Your task to perform on an android device: turn off data saver in the chrome app Image 0: 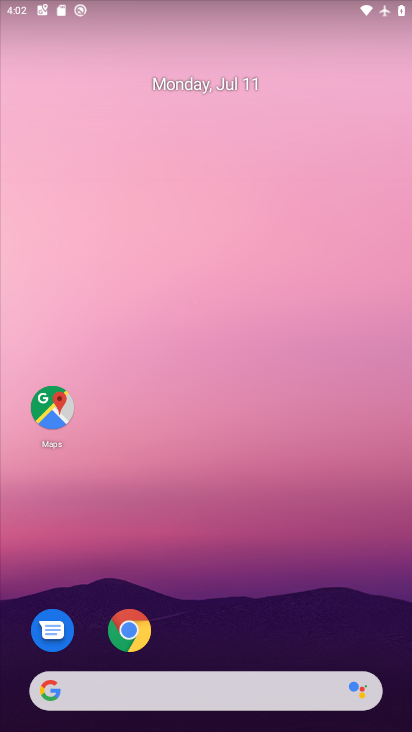
Step 0: click (131, 623)
Your task to perform on an android device: turn off data saver in the chrome app Image 1: 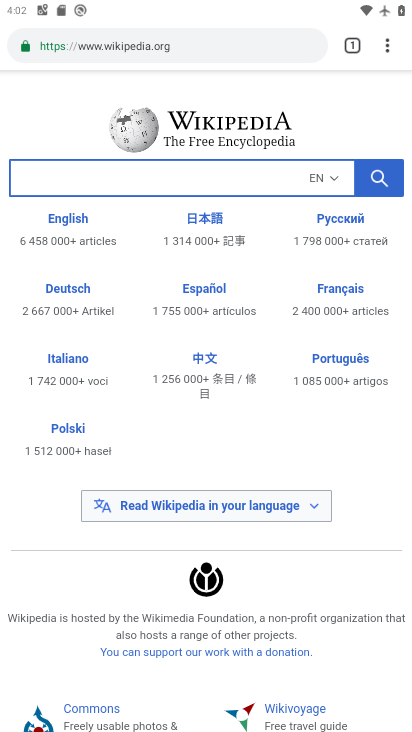
Step 1: click (394, 37)
Your task to perform on an android device: turn off data saver in the chrome app Image 2: 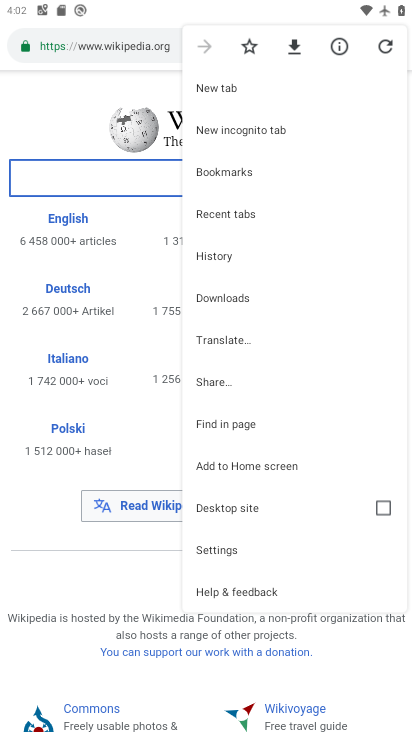
Step 2: click (250, 538)
Your task to perform on an android device: turn off data saver in the chrome app Image 3: 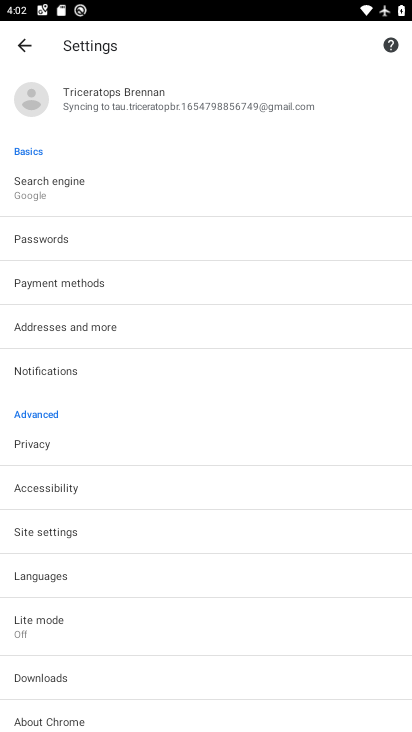
Step 3: click (125, 643)
Your task to perform on an android device: turn off data saver in the chrome app Image 4: 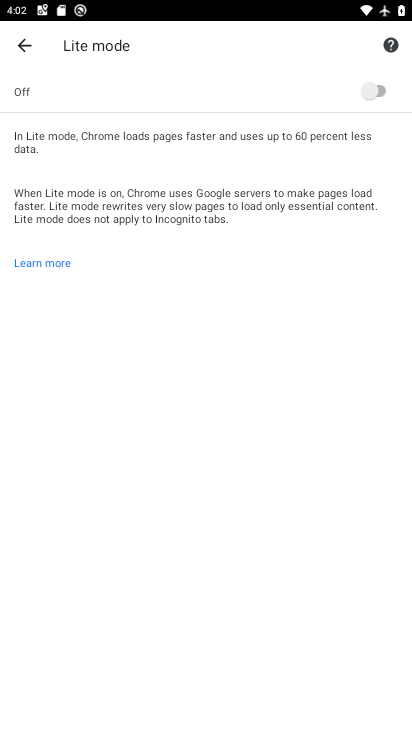
Step 4: click (362, 73)
Your task to perform on an android device: turn off data saver in the chrome app Image 5: 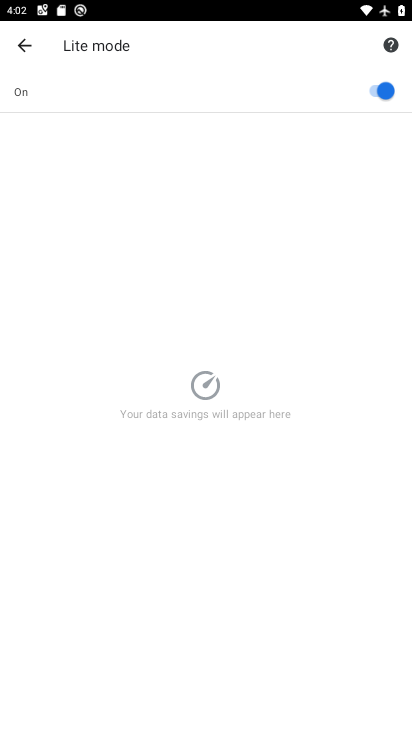
Step 5: click (324, 84)
Your task to perform on an android device: turn off data saver in the chrome app Image 6: 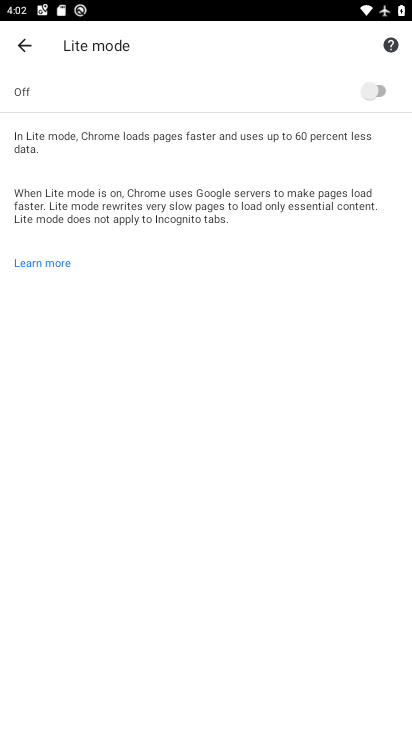
Step 6: task complete